Your task to perform on an android device: What's the weather? Image 0: 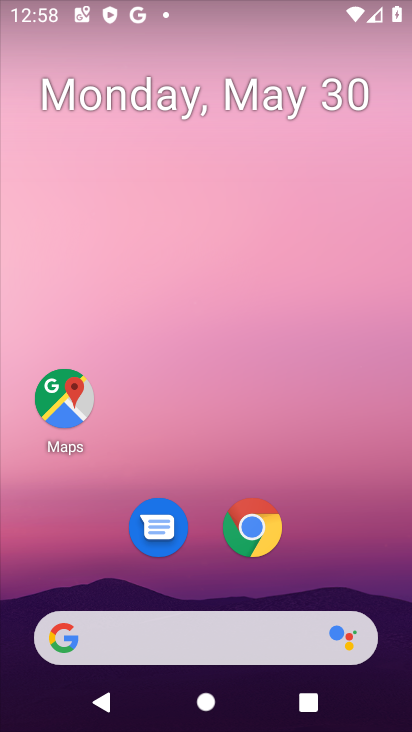
Step 0: drag from (357, 555) to (274, 134)
Your task to perform on an android device: What's the weather? Image 1: 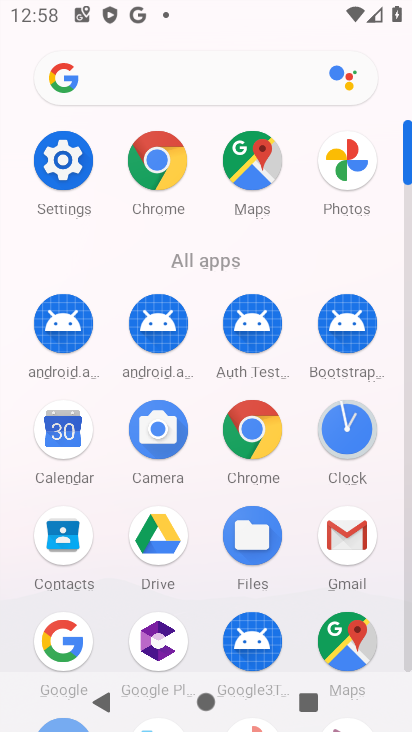
Step 1: click (170, 171)
Your task to perform on an android device: What's the weather? Image 2: 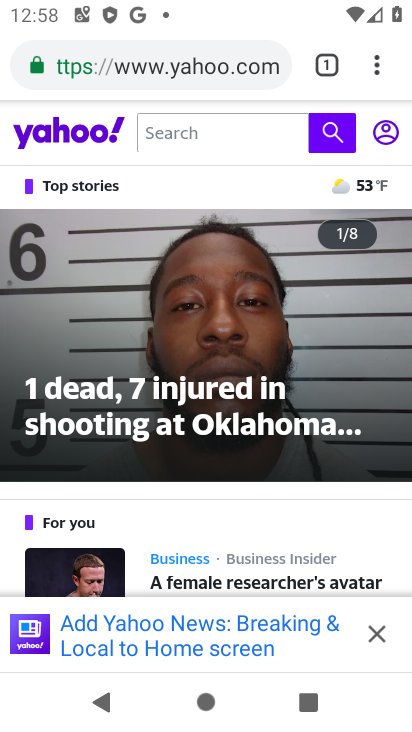
Step 2: click (194, 66)
Your task to perform on an android device: What's the weather? Image 3: 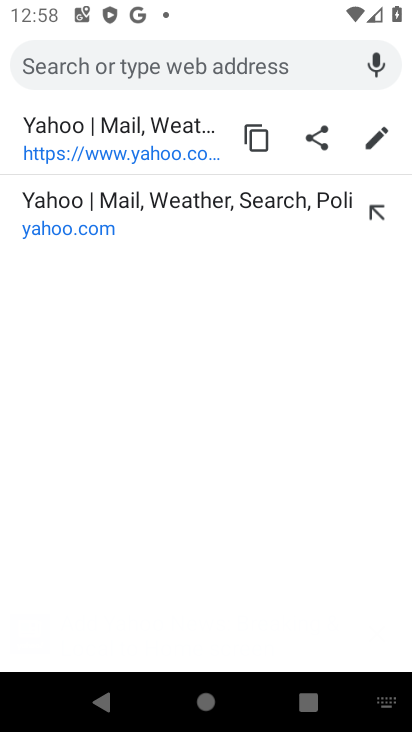
Step 3: type "What's the weather?"
Your task to perform on an android device: What's the weather? Image 4: 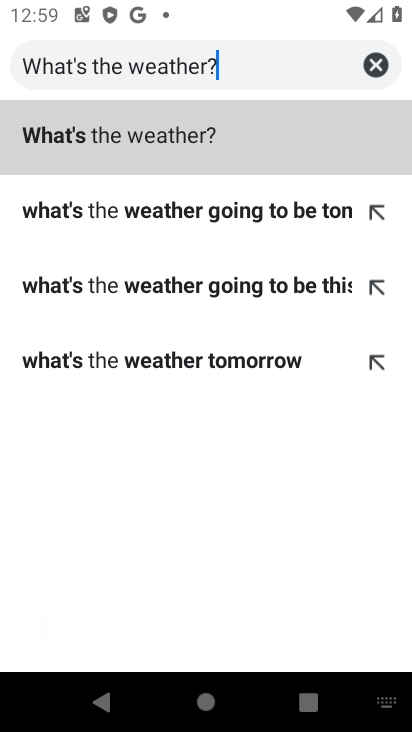
Step 4: click (174, 132)
Your task to perform on an android device: What's the weather? Image 5: 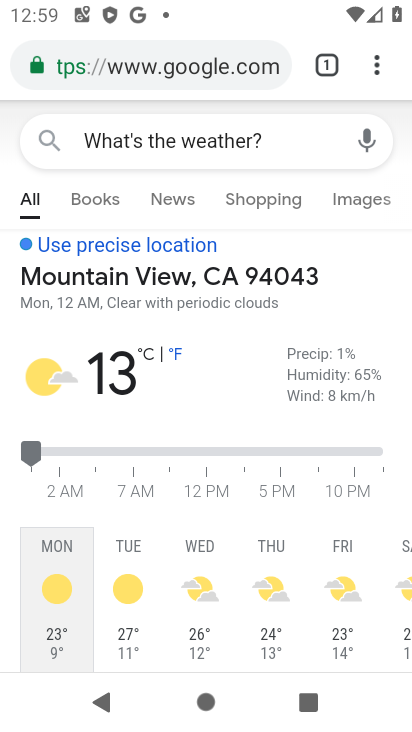
Step 5: task complete